Your task to perform on an android device: choose inbox layout in the gmail app Image 0: 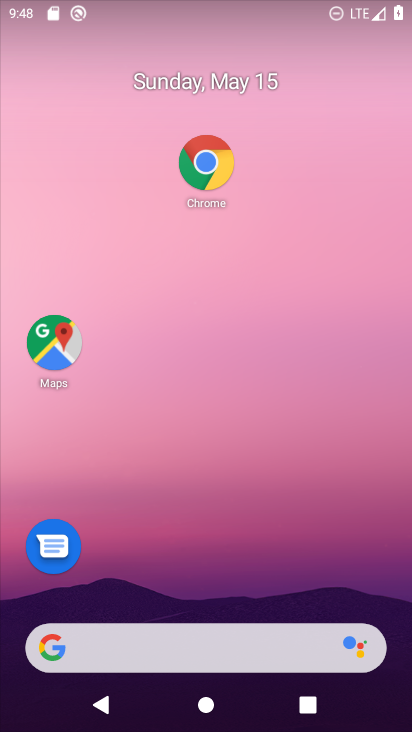
Step 0: drag from (188, 611) to (224, 219)
Your task to perform on an android device: choose inbox layout in the gmail app Image 1: 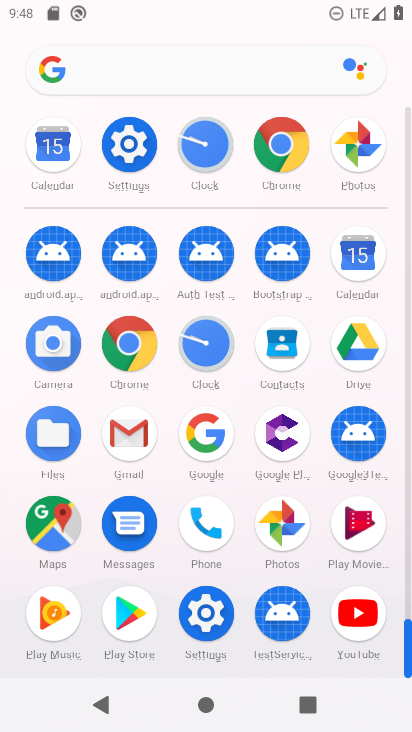
Step 1: click (125, 435)
Your task to perform on an android device: choose inbox layout in the gmail app Image 2: 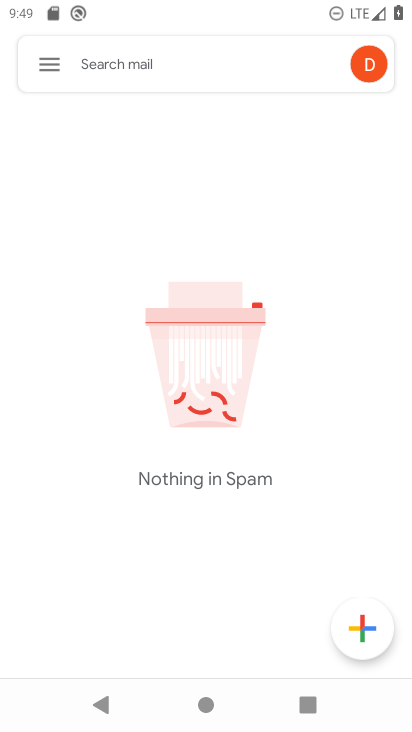
Step 2: click (53, 67)
Your task to perform on an android device: choose inbox layout in the gmail app Image 3: 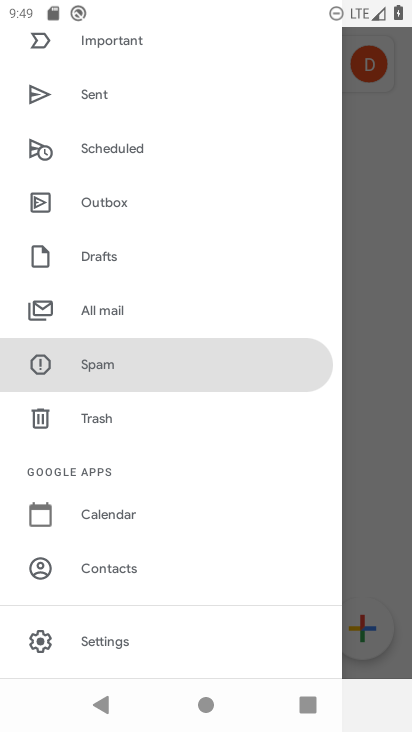
Step 3: click (125, 652)
Your task to perform on an android device: choose inbox layout in the gmail app Image 4: 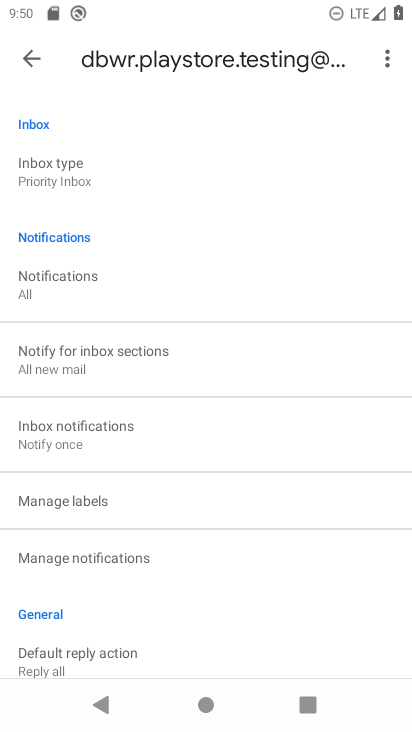
Step 4: drag from (165, 566) to (169, 210)
Your task to perform on an android device: choose inbox layout in the gmail app Image 5: 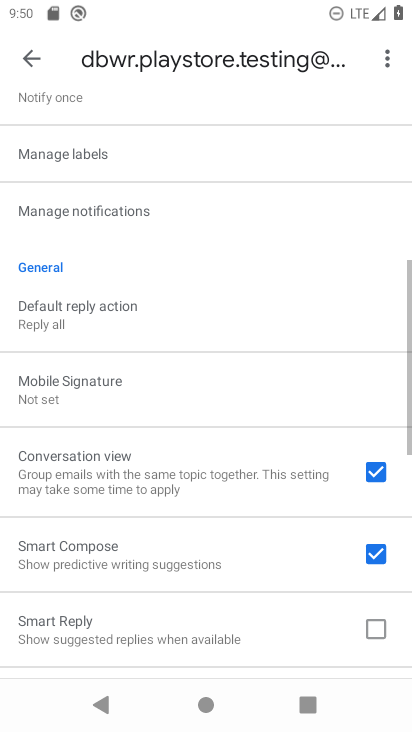
Step 5: click (21, 54)
Your task to perform on an android device: choose inbox layout in the gmail app Image 6: 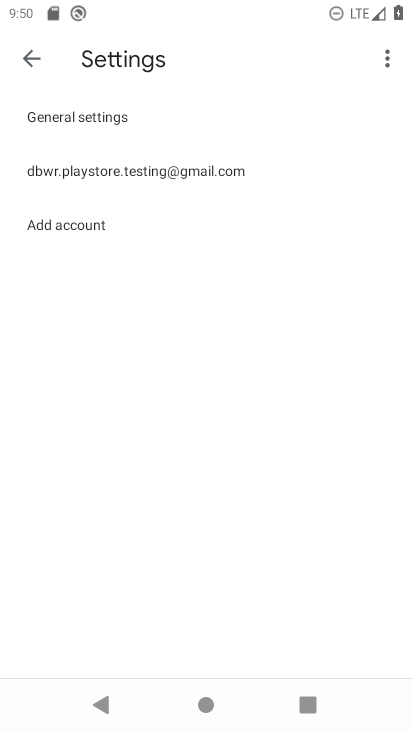
Step 6: task complete